Your task to perform on an android device: Search for Italian restaurants on Maps Image 0: 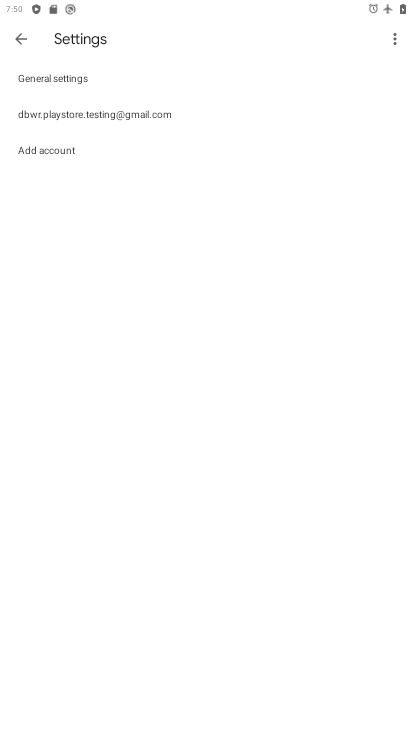
Step 0: click (239, 344)
Your task to perform on an android device: Search for Italian restaurants on Maps Image 1: 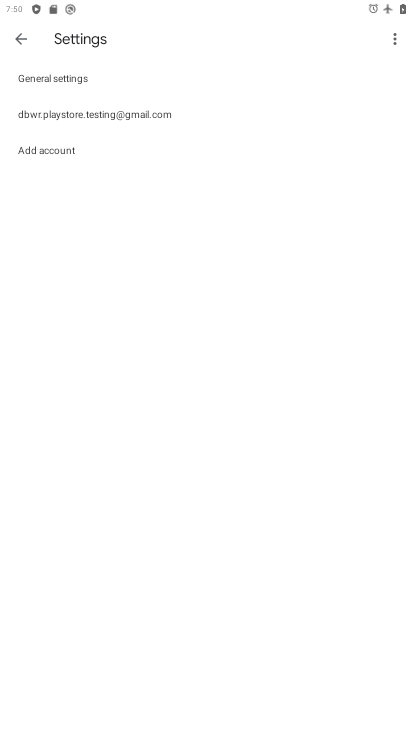
Step 1: press home button
Your task to perform on an android device: Search for Italian restaurants on Maps Image 2: 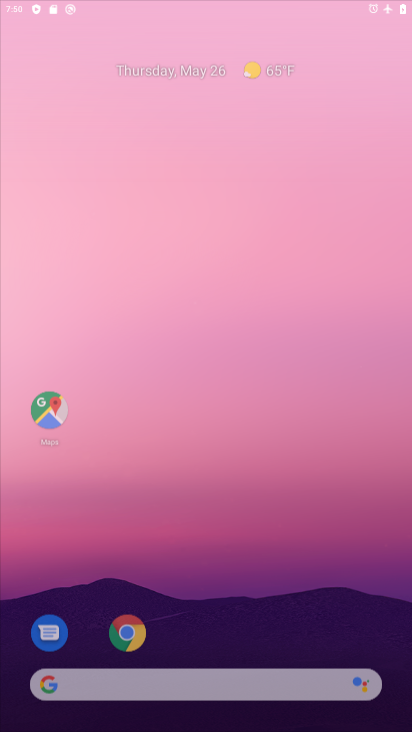
Step 2: drag from (162, 578) to (221, 122)
Your task to perform on an android device: Search for Italian restaurants on Maps Image 3: 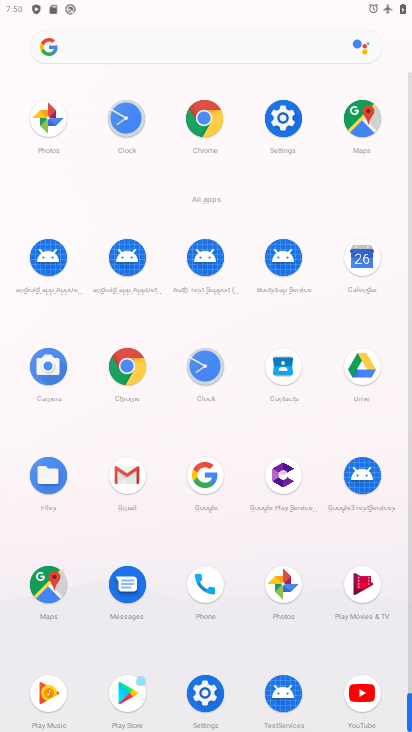
Step 3: click (61, 582)
Your task to perform on an android device: Search for Italian restaurants on Maps Image 4: 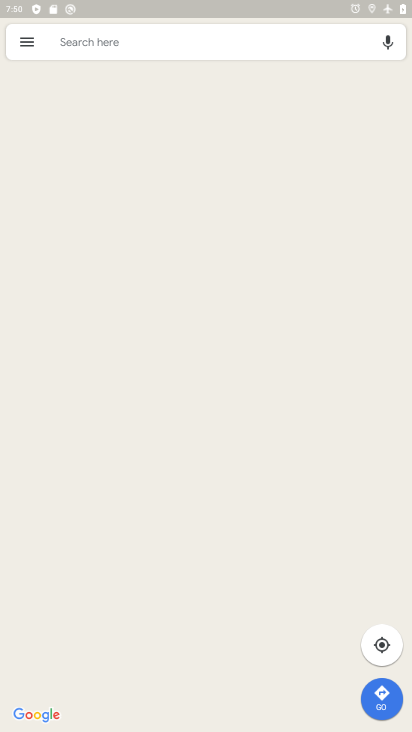
Step 4: click (148, 67)
Your task to perform on an android device: Search for Italian restaurants on Maps Image 5: 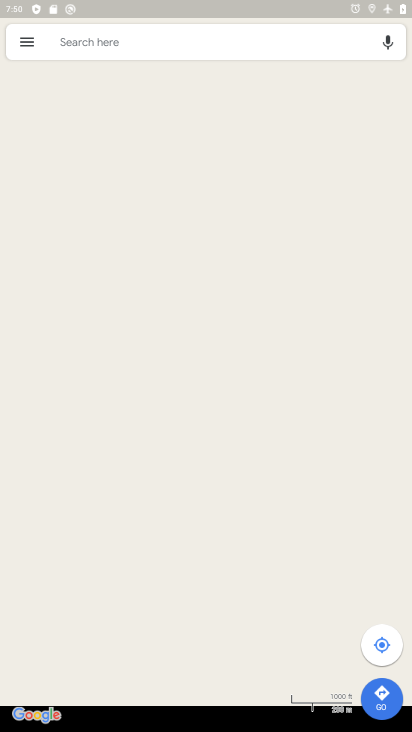
Step 5: click (176, 39)
Your task to perform on an android device: Search for Italian restaurants on Maps Image 6: 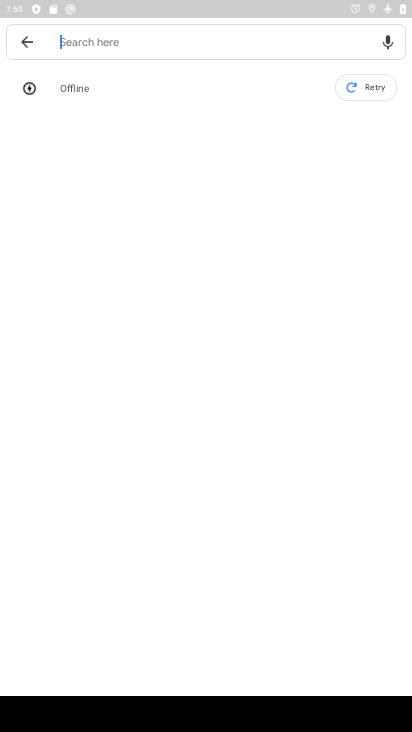
Step 6: task complete